Your task to perform on an android device: clear all cookies in the chrome app Image 0: 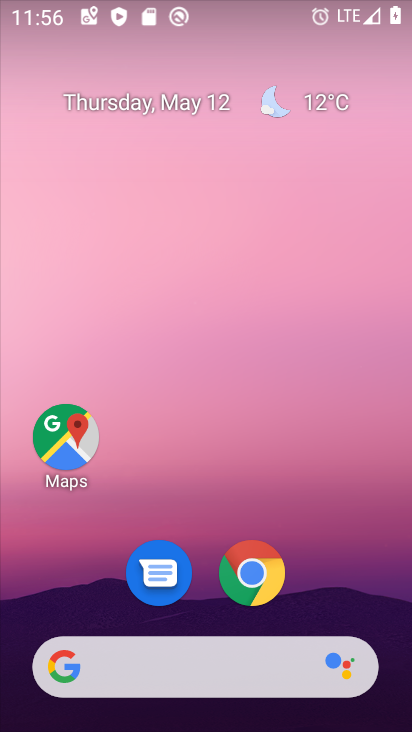
Step 0: click (261, 572)
Your task to perform on an android device: clear all cookies in the chrome app Image 1: 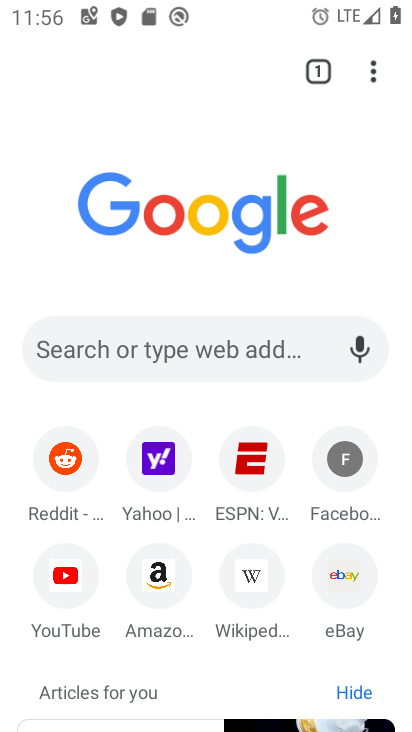
Step 1: click (376, 72)
Your task to perform on an android device: clear all cookies in the chrome app Image 2: 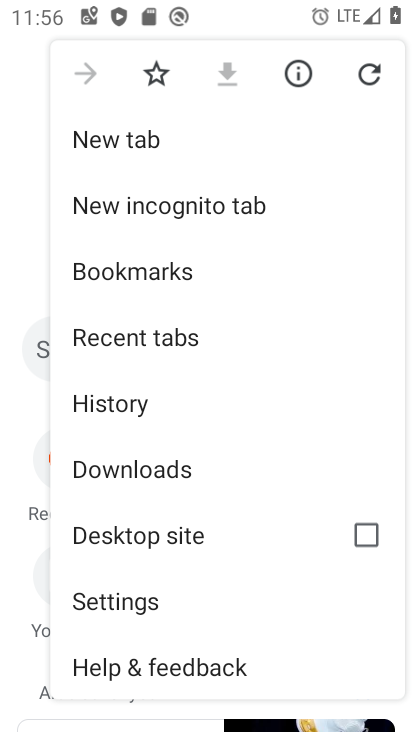
Step 2: click (168, 610)
Your task to perform on an android device: clear all cookies in the chrome app Image 3: 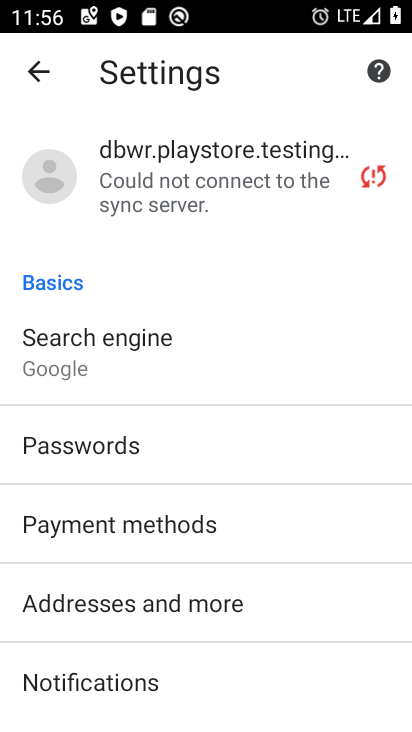
Step 3: drag from (262, 674) to (226, 267)
Your task to perform on an android device: clear all cookies in the chrome app Image 4: 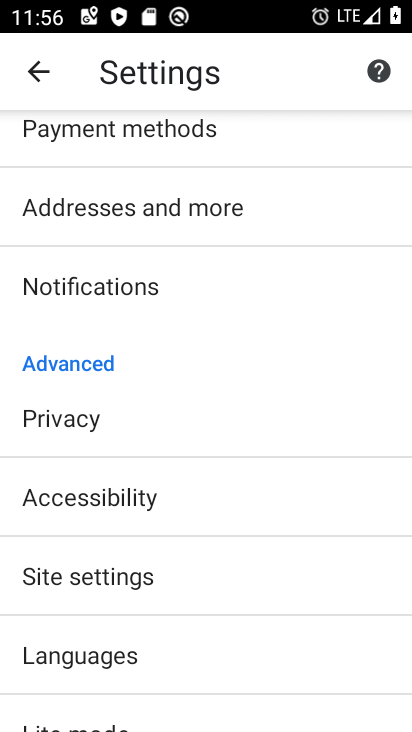
Step 4: click (182, 579)
Your task to perform on an android device: clear all cookies in the chrome app Image 5: 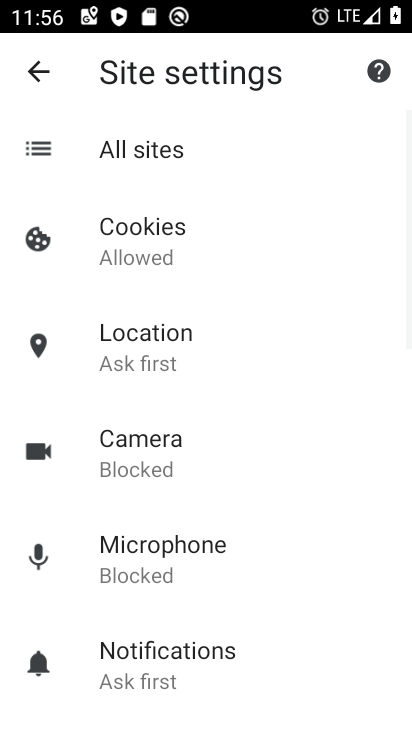
Step 5: click (168, 253)
Your task to perform on an android device: clear all cookies in the chrome app Image 6: 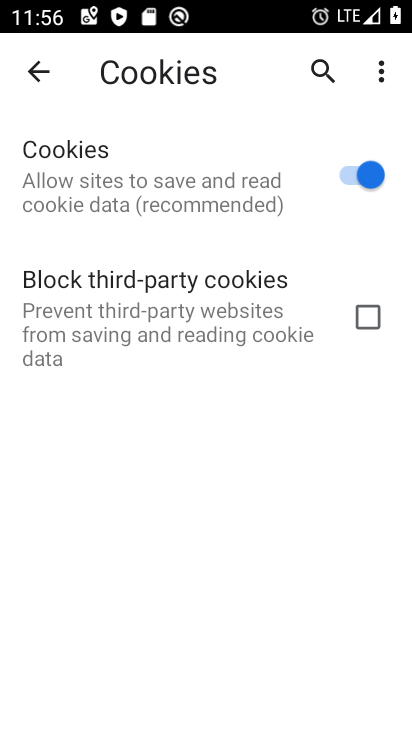
Step 6: task complete